Your task to perform on an android device: turn off location Image 0: 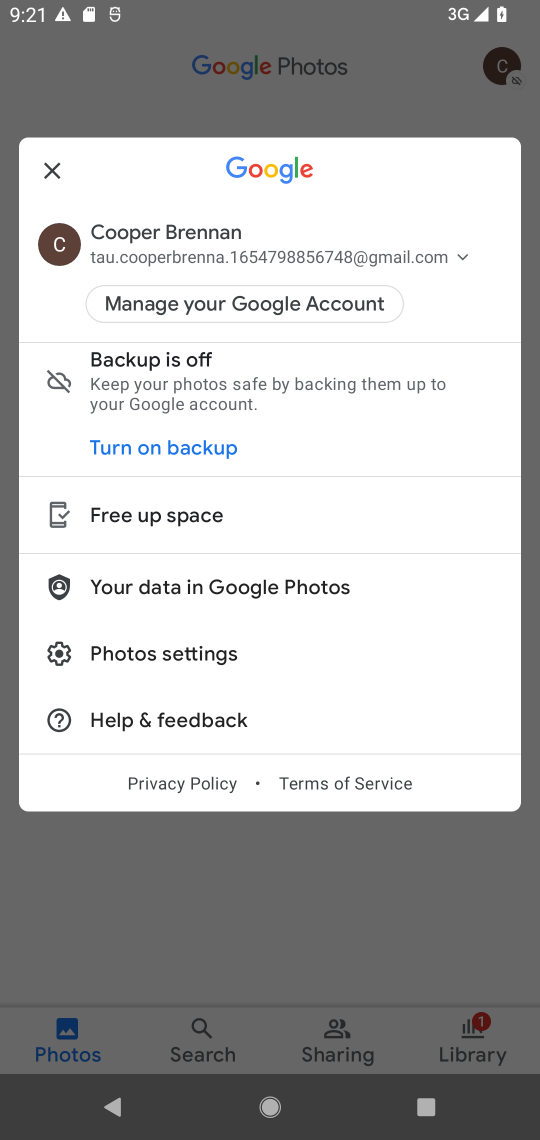
Step 0: press home button
Your task to perform on an android device: turn off location Image 1: 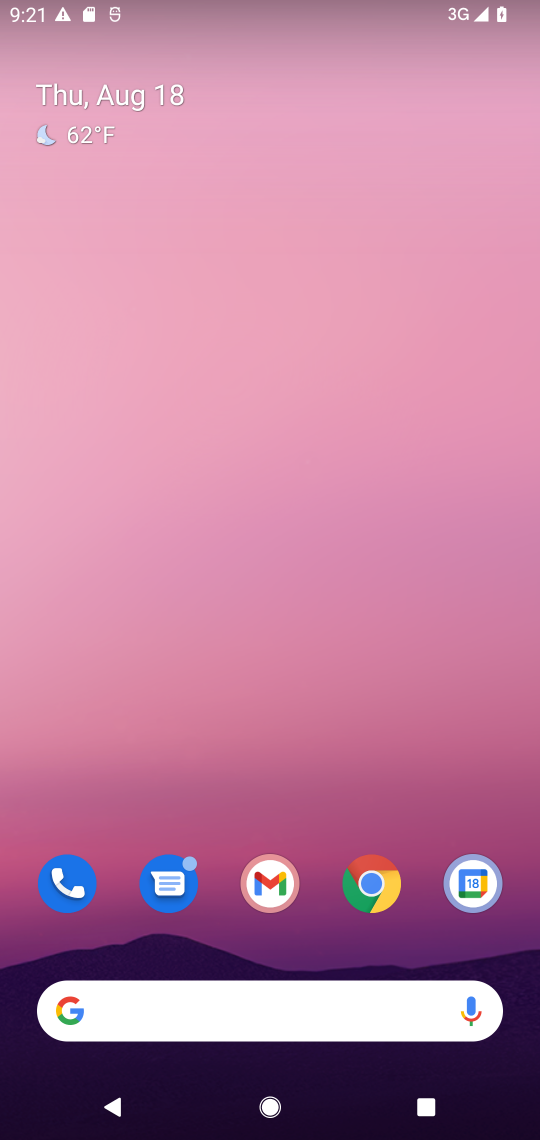
Step 1: drag from (144, 883) to (248, 425)
Your task to perform on an android device: turn off location Image 2: 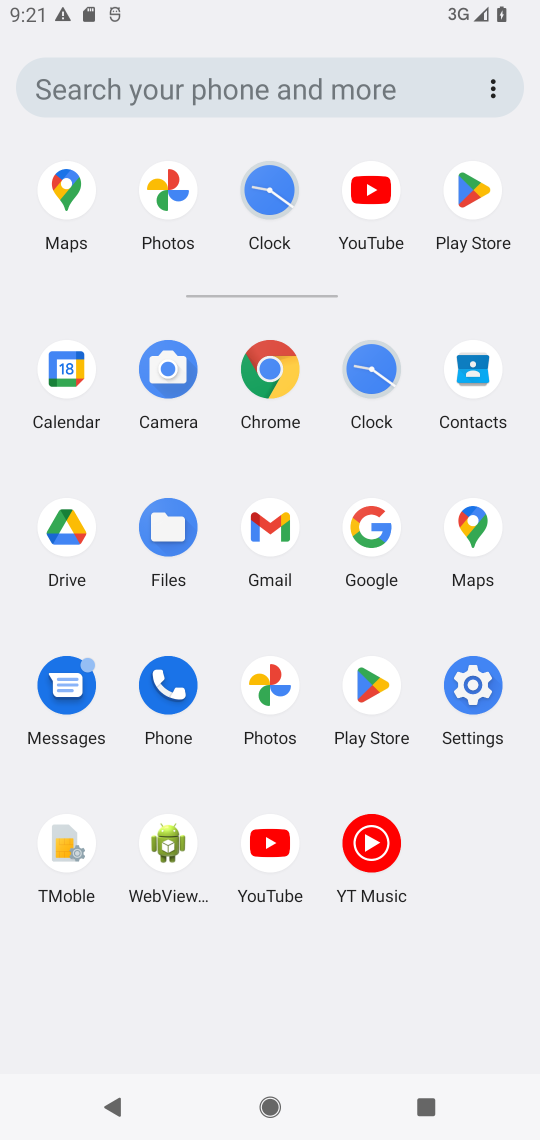
Step 2: click (451, 702)
Your task to perform on an android device: turn off location Image 3: 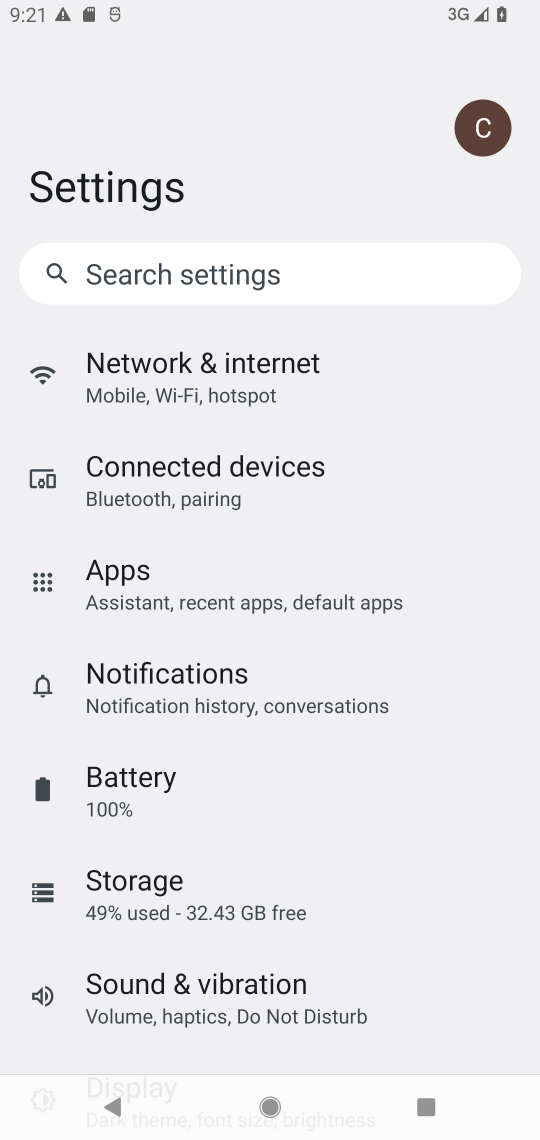
Step 3: drag from (379, 966) to (396, 396)
Your task to perform on an android device: turn off location Image 4: 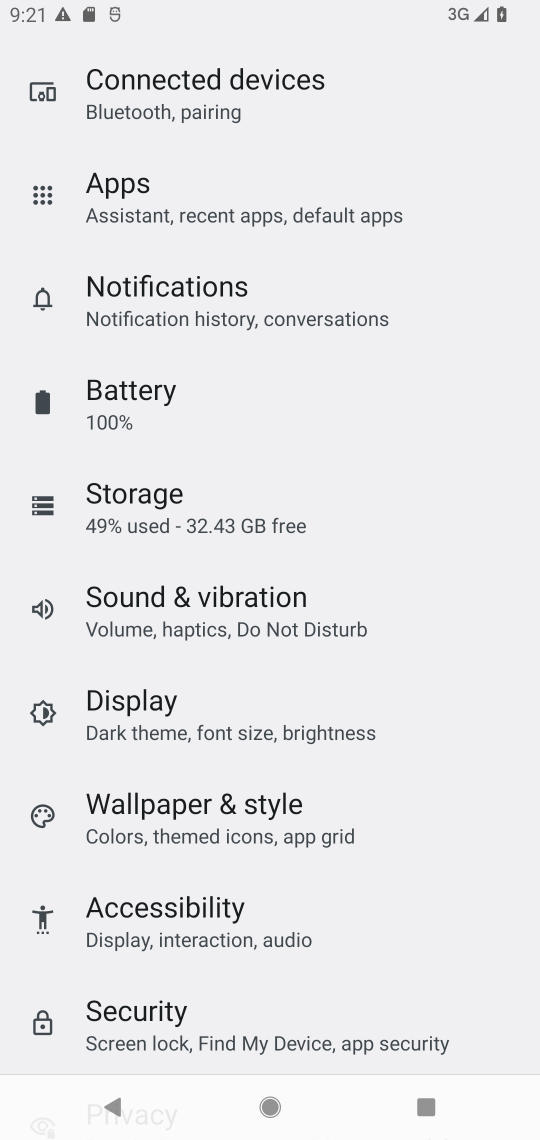
Step 4: drag from (435, 958) to (528, 271)
Your task to perform on an android device: turn off location Image 5: 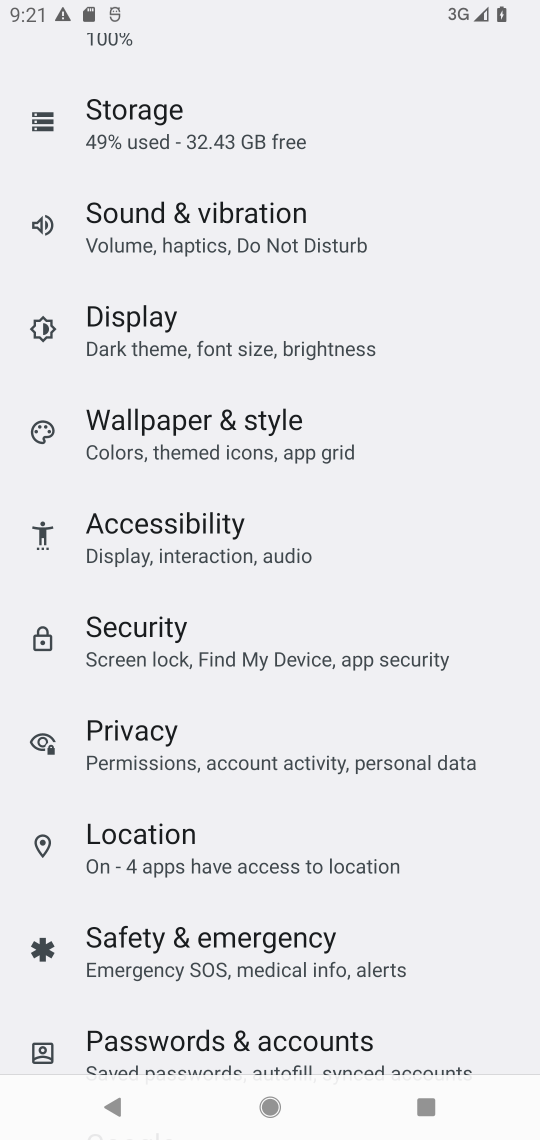
Step 5: click (208, 855)
Your task to perform on an android device: turn off location Image 6: 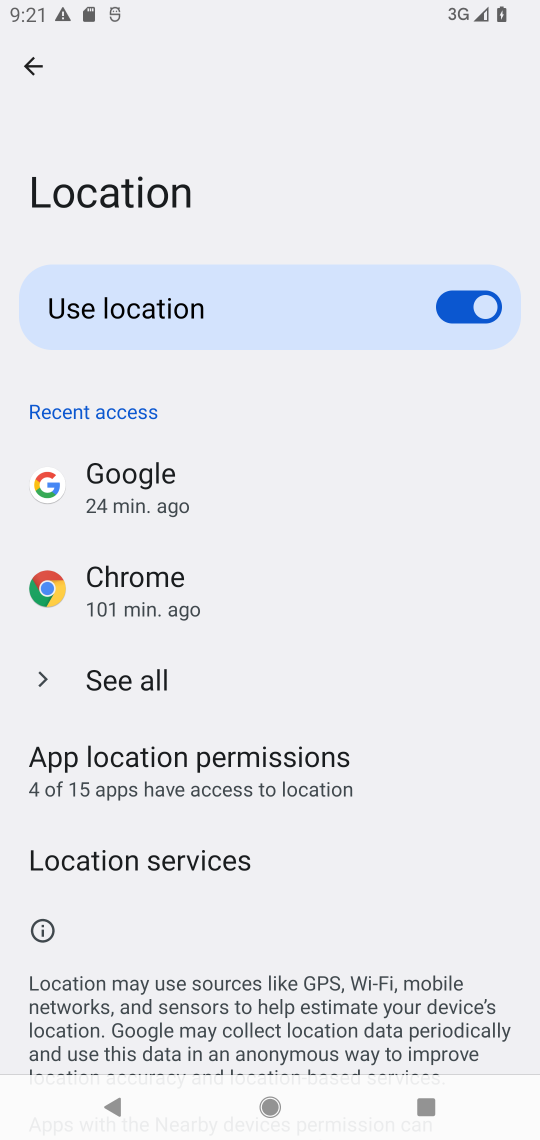
Step 6: click (479, 317)
Your task to perform on an android device: turn off location Image 7: 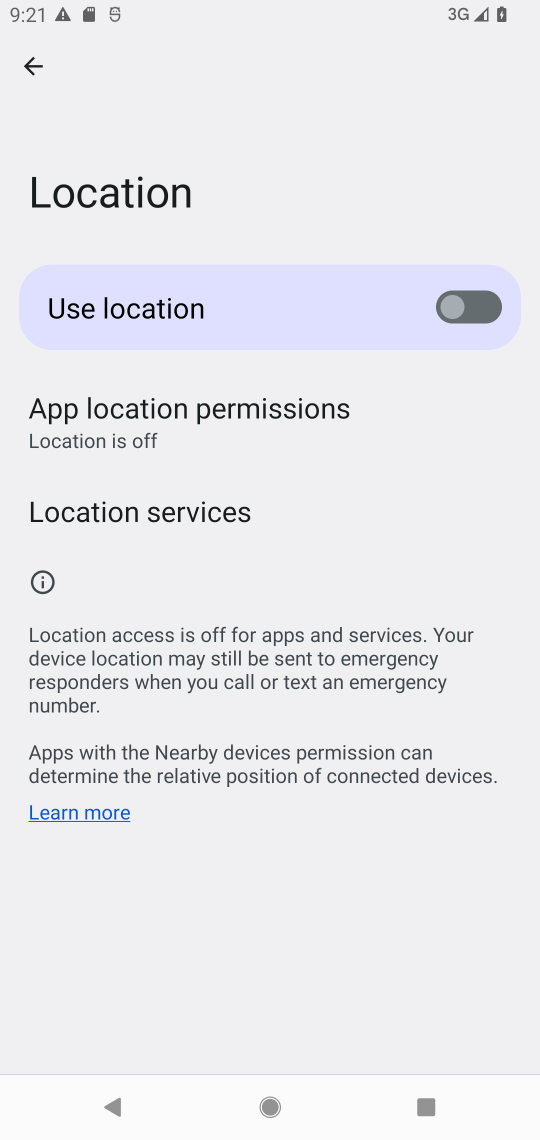
Step 7: task complete